Your task to perform on an android device: Show me popular games on the Play Store Image 0: 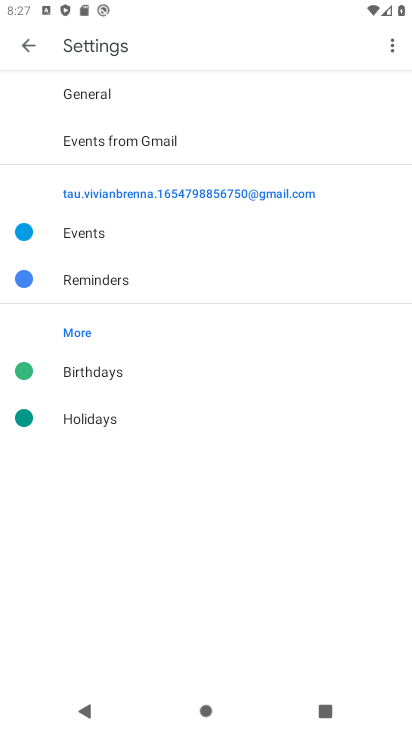
Step 0: press home button
Your task to perform on an android device: Show me popular games on the Play Store Image 1: 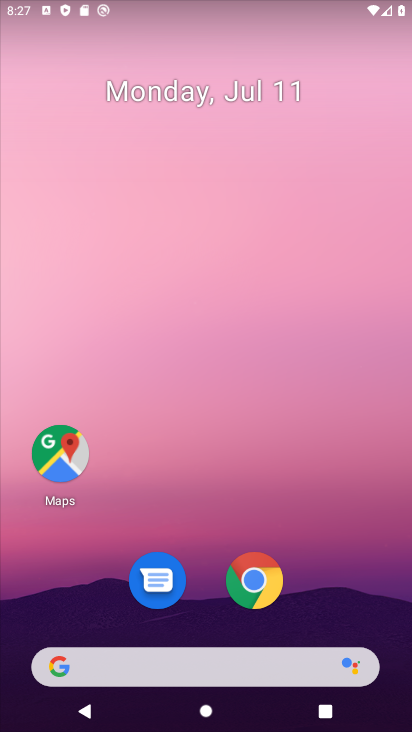
Step 1: drag from (386, 658) to (288, 178)
Your task to perform on an android device: Show me popular games on the Play Store Image 2: 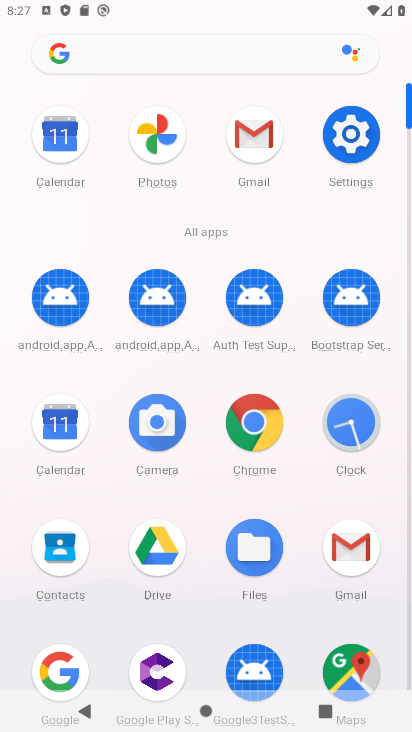
Step 2: drag from (198, 626) to (154, 95)
Your task to perform on an android device: Show me popular games on the Play Store Image 3: 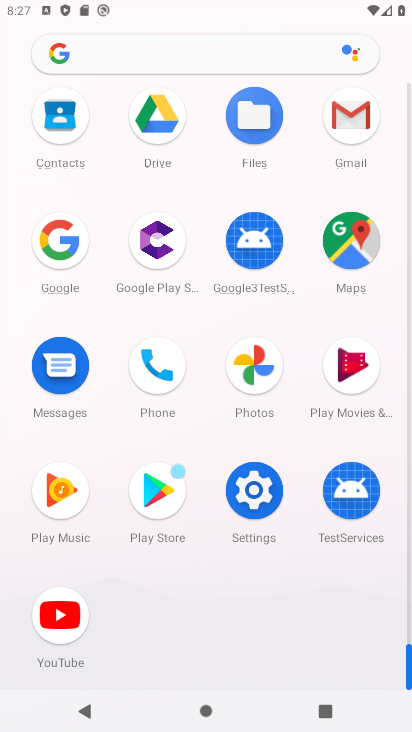
Step 3: click (163, 500)
Your task to perform on an android device: Show me popular games on the Play Store Image 4: 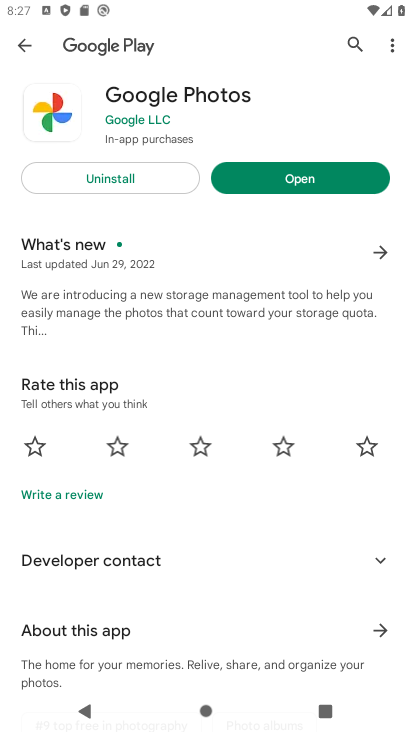
Step 4: press back button
Your task to perform on an android device: Show me popular games on the Play Store Image 5: 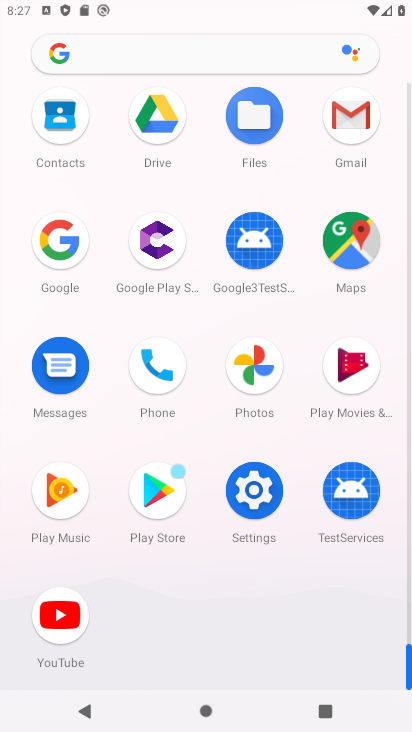
Step 5: click (162, 485)
Your task to perform on an android device: Show me popular games on the Play Store Image 6: 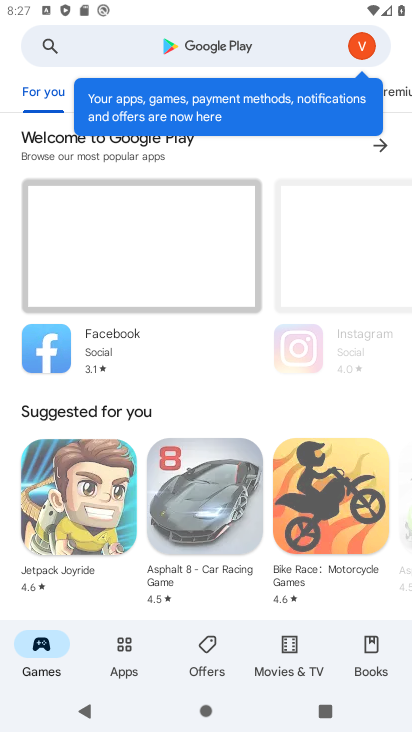
Step 6: task complete